Your task to perform on an android device: allow cookies in the chrome app Image 0: 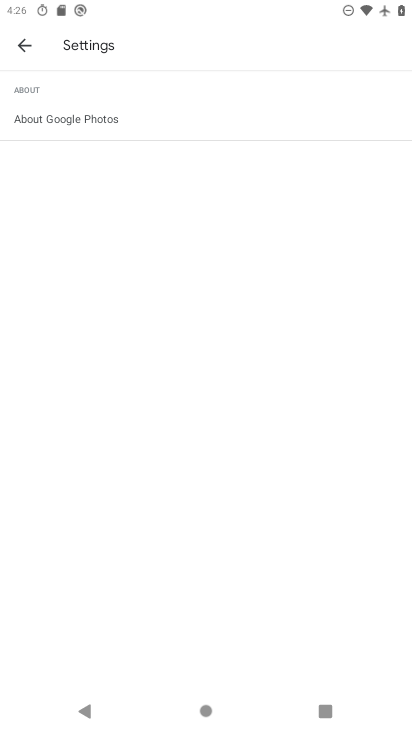
Step 0: press home button
Your task to perform on an android device: allow cookies in the chrome app Image 1: 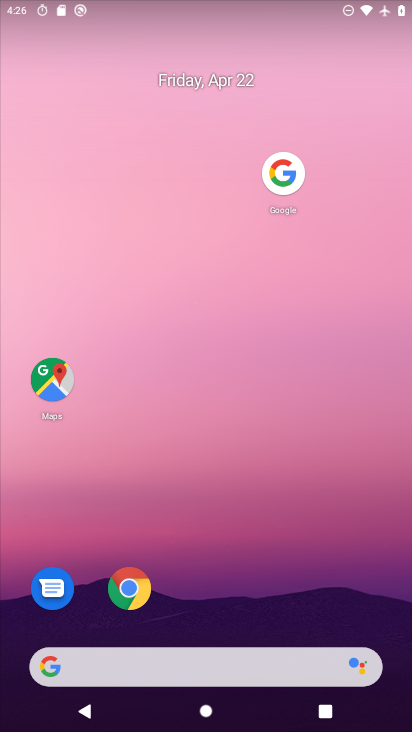
Step 1: drag from (196, 645) to (399, 181)
Your task to perform on an android device: allow cookies in the chrome app Image 2: 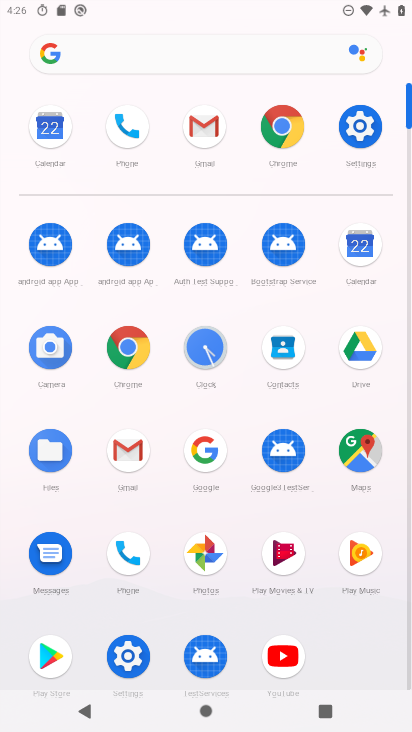
Step 2: click (126, 350)
Your task to perform on an android device: allow cookies in the chrome app Image 3: 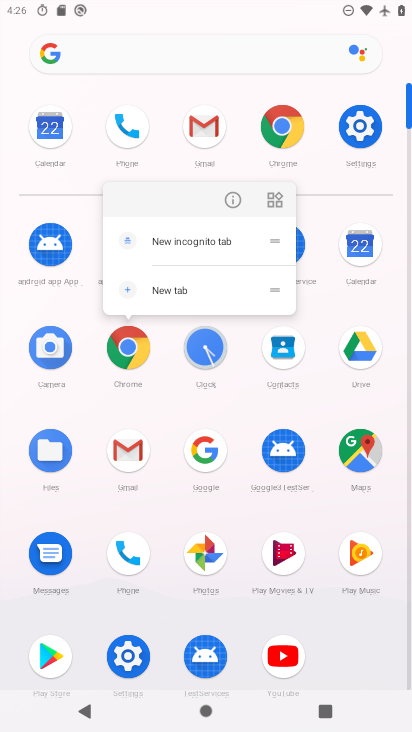
Step 3: click (124, 355)
Your task to perform on an android device: allow cookies in the chrome app Image 4: 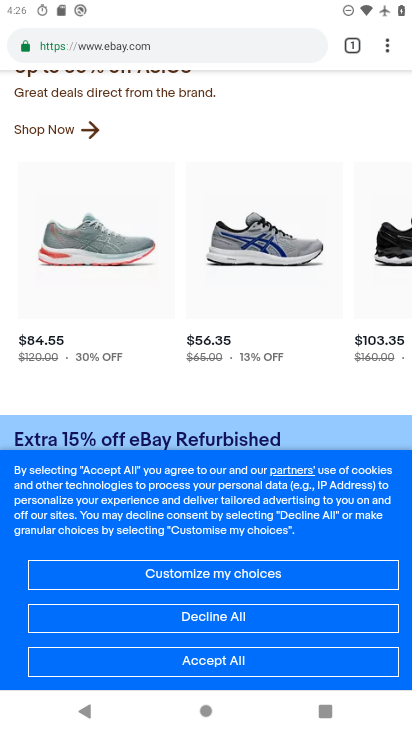
Step 4: drag from (386, 46) to (216, 589)
Your task to perform on an android device: allow cookies in the chrome app Image 5: 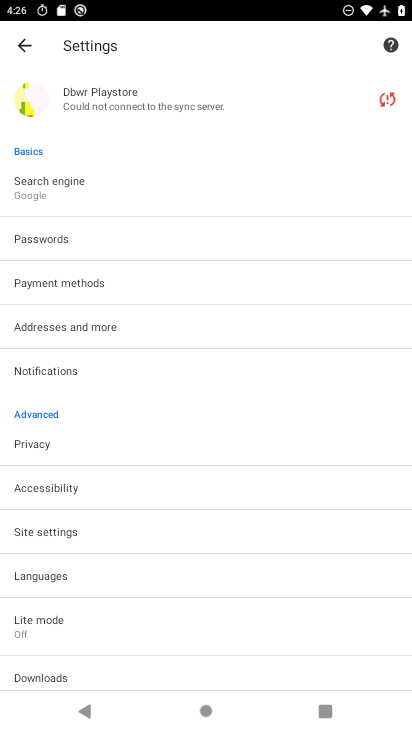
Step 5: click (61, 540)
Your task to perform on an android device: allow cookies in the chrome app Image 6: 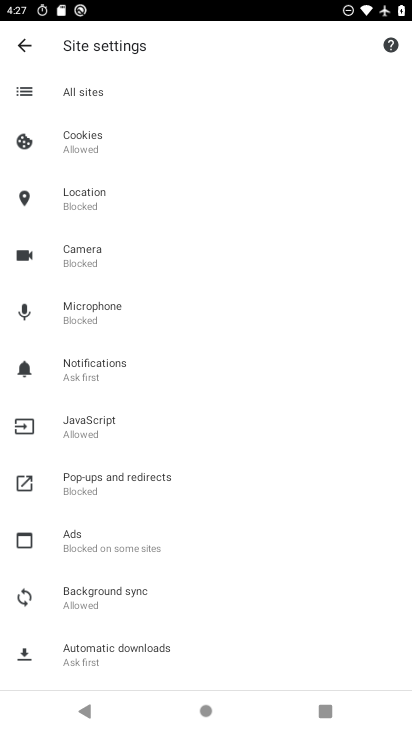
Step 6: click (94, 138)
Your task to perform on an android device: allow cookies in the chrome app Image 7: 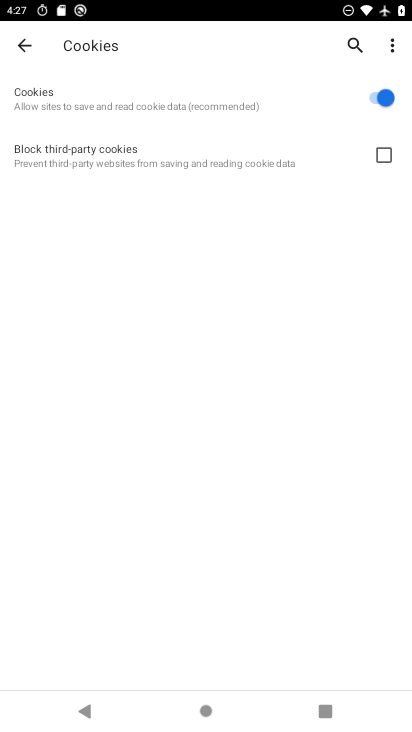
Step 7: task complete